Your task to perform on an android device: Go to notification settings Image 0: 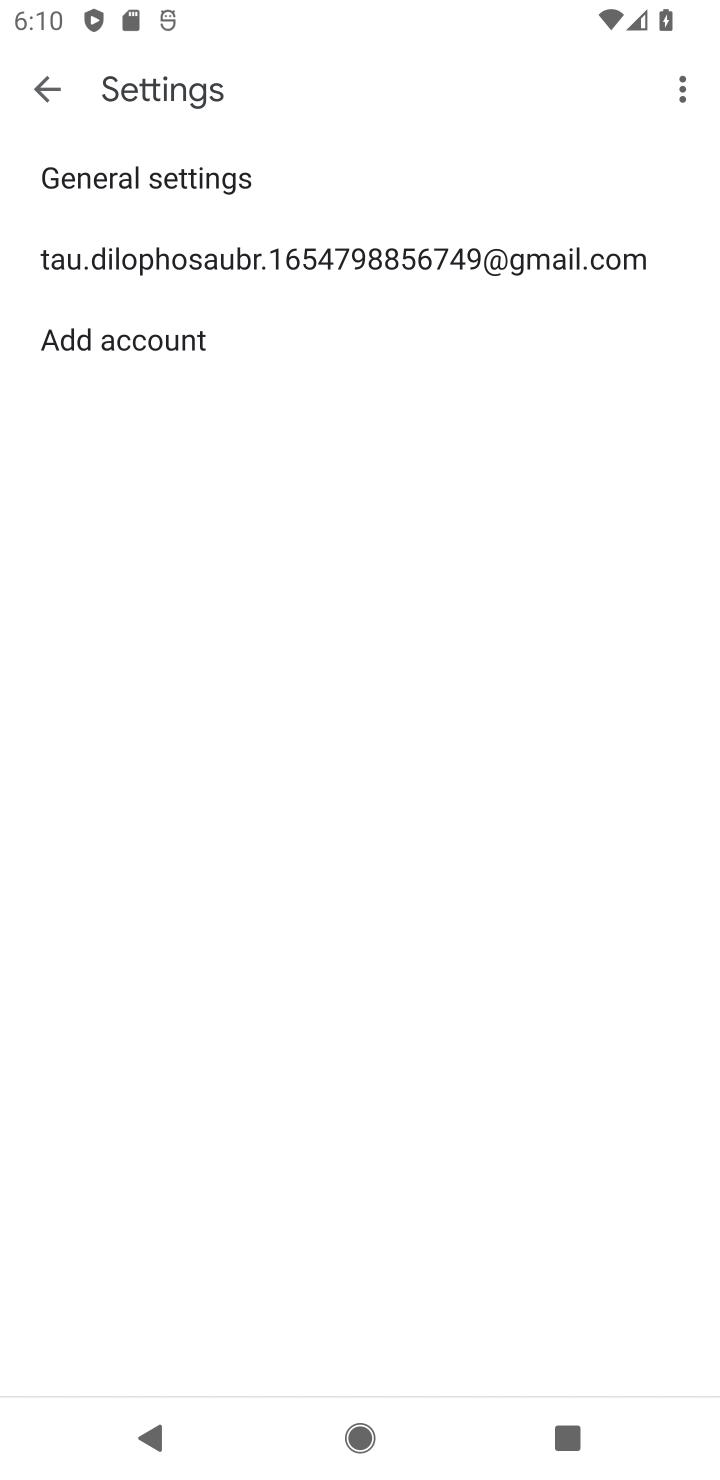
Step 0: press home button
Your task to perform on an android device: Go to notification settings Image 1: 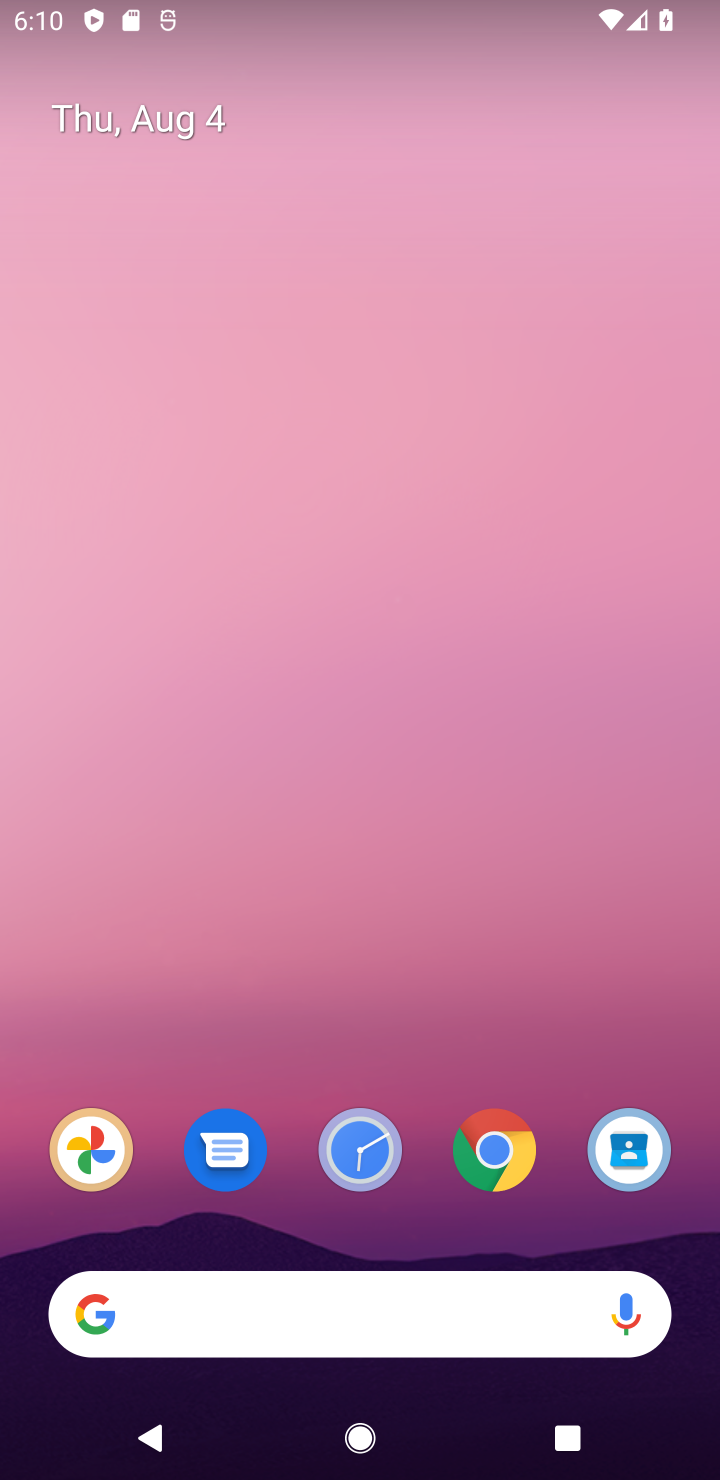
Step 1: drag from (328, 1296) to (248, 145)
Your task to perform on an android device: Go to notification settings Image 2: 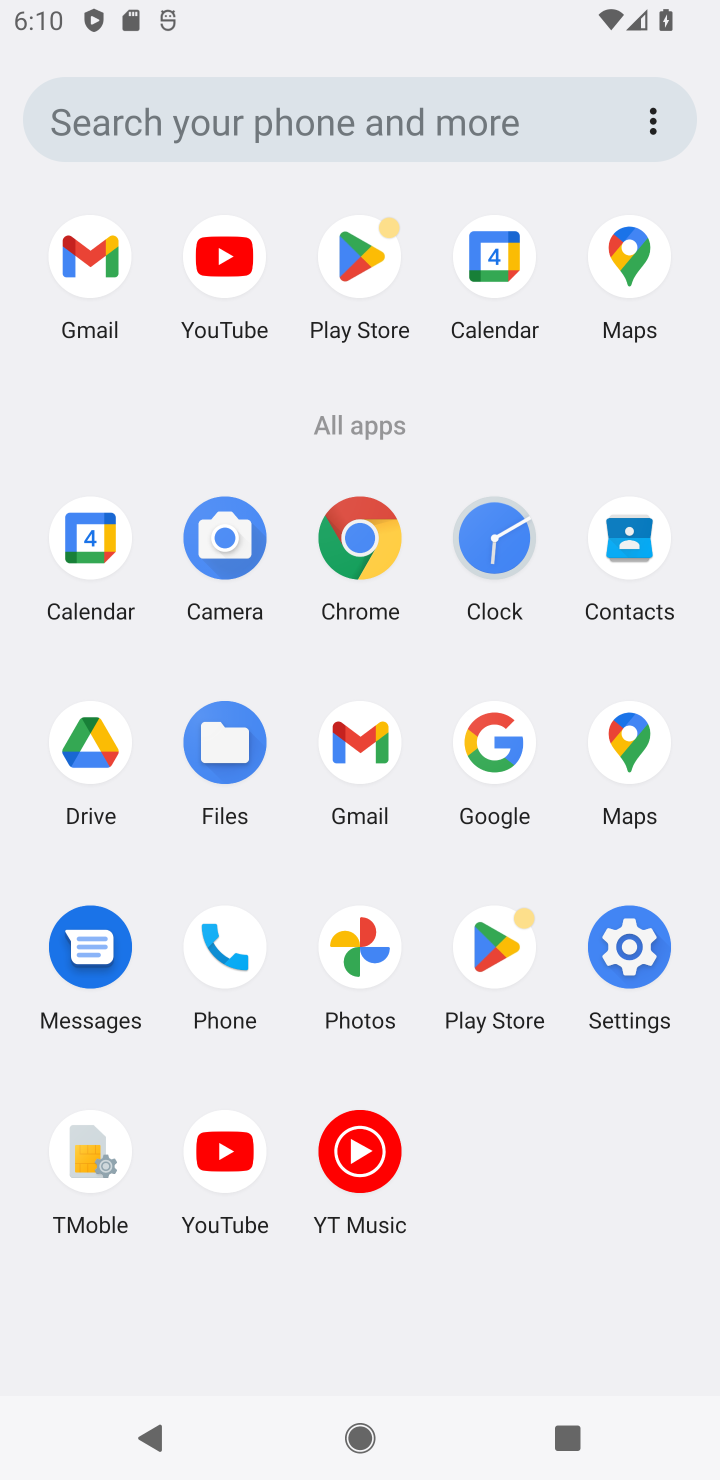
Step 2: click (617, 935)
Your task to perform on an android device: Go to notification settings Image 3: 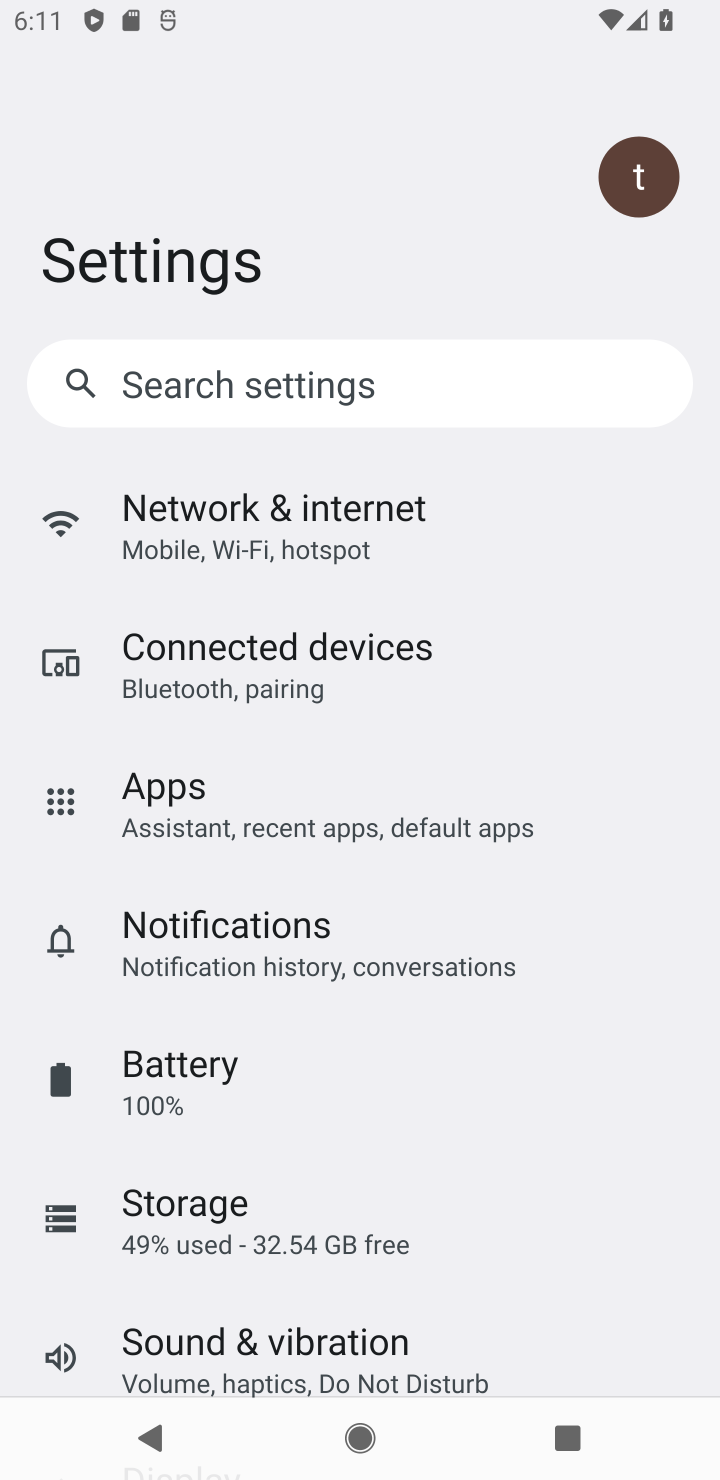
Step 3: click (280, 952)
Your task to perform on an android device: Go to notification settings Image 4: 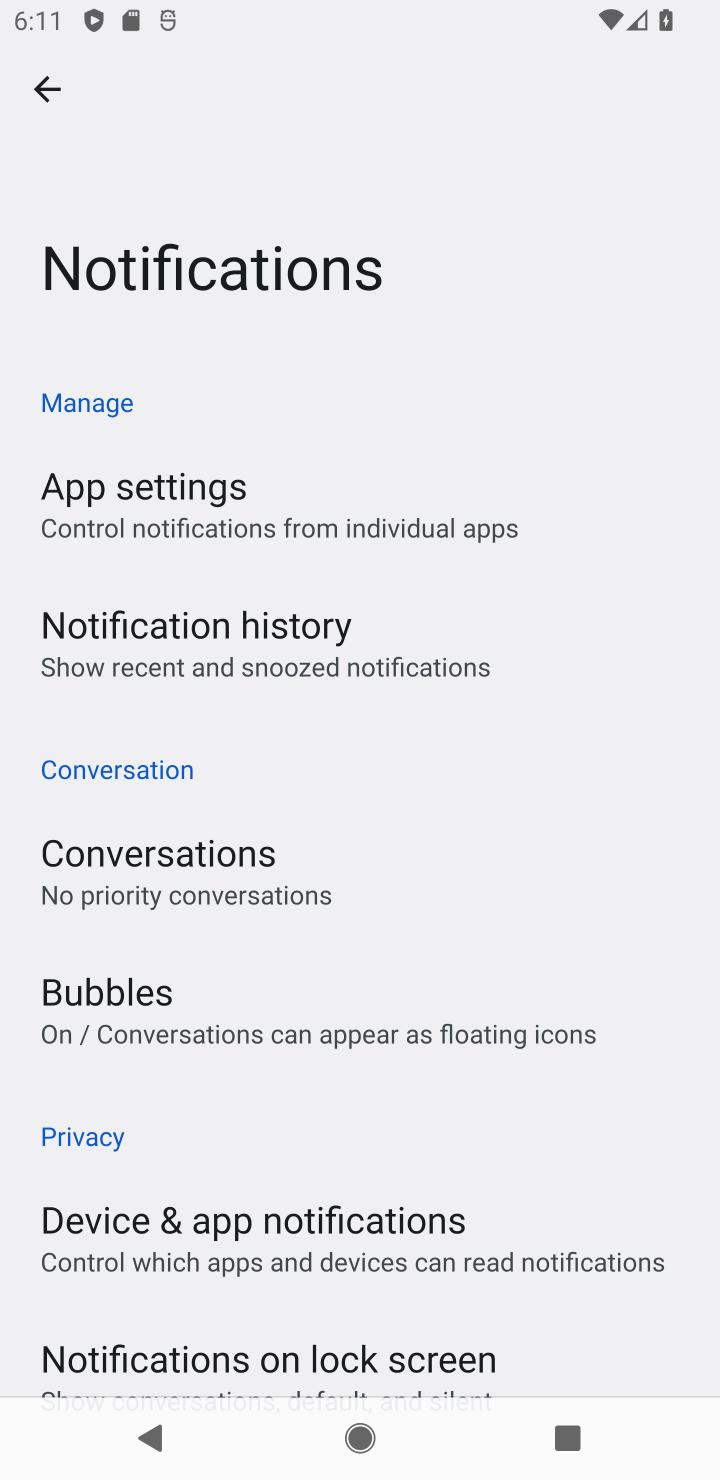
Step 4: task complete